Your task to perform on an android device: turn off wifi Image 0: 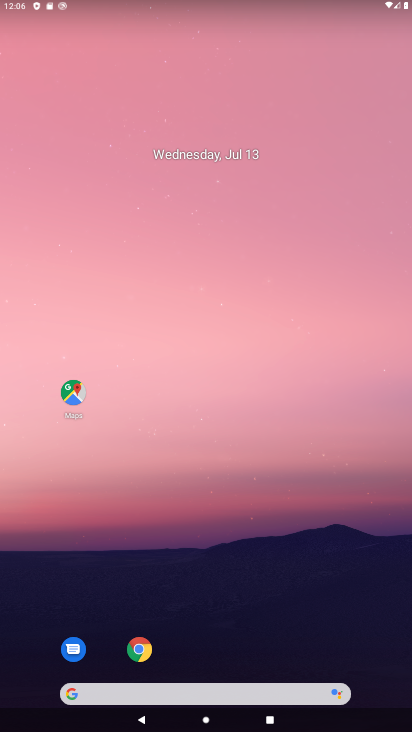
Step 0: drag from (357, 5) to (387, 493)
Your task to perform on an android device: turn off wifi Image 1: 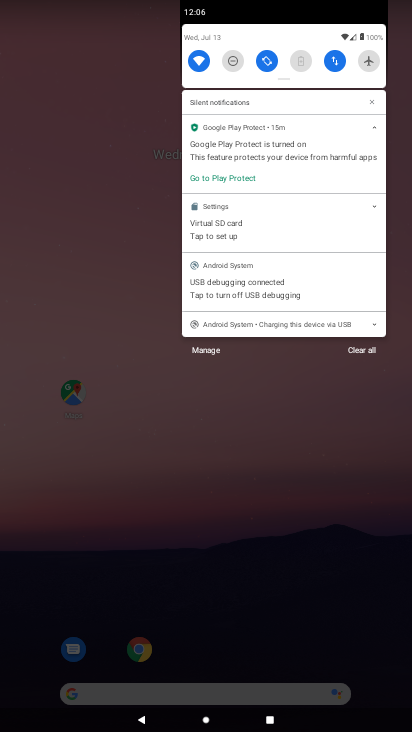
Step 1: click (198, 59)
Your task to perform on an android device: turn off wifi Image 2: 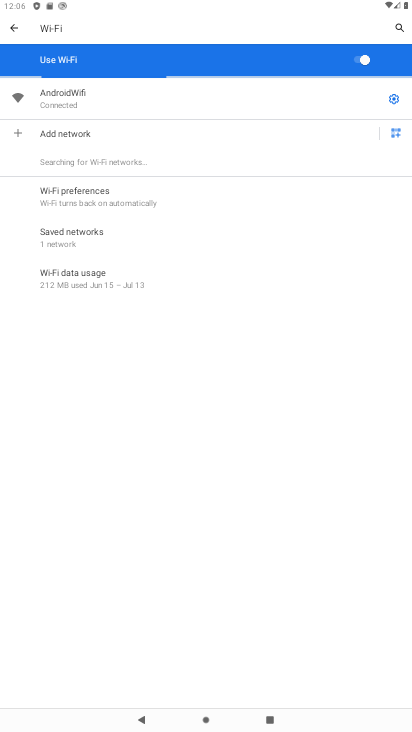
Step 2: click (359, 63)
Your task to perform on an android device: turn off wifi Image 3: 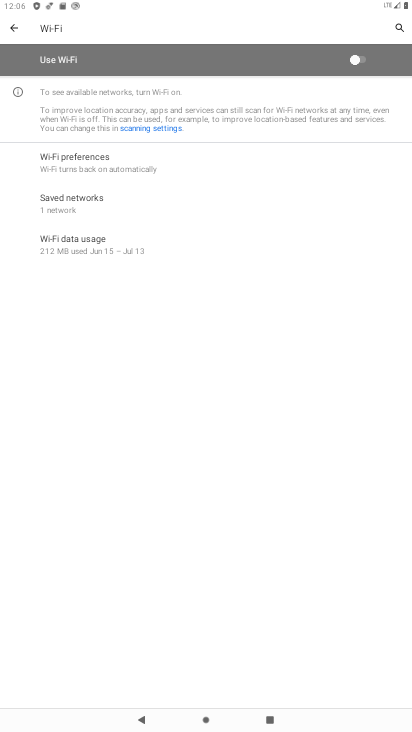
Step 3: task complete